Your task to perform on an android device: Clear the shopping cart on ebay.com. Search for "macbook pro" on ebay.com, select the first entry, add it to the cart, then select checkout. Image 0: 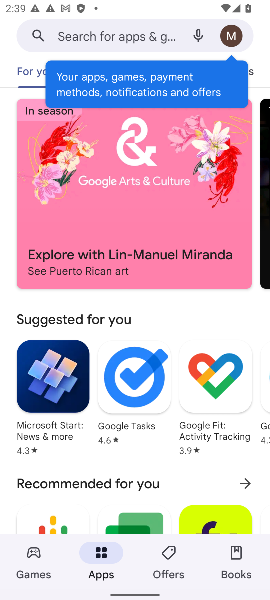
Step 0: press home button
Your task to perform on an android device: Clear the shopping cart on ebay.com. Search for "macbook pro" on ebay.com, select the first entry, add it to the cart, then select checkout. Image 1: 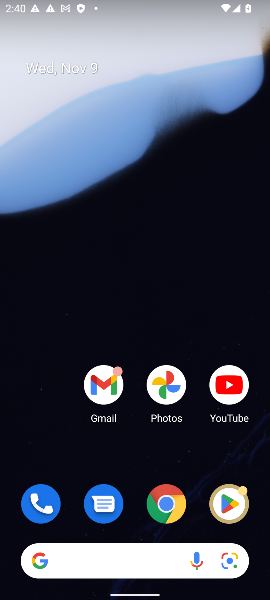
Step 1: click (164, 501)
Your task to perform on an android device: Clear the shopping cart on ebay.com. Search for "macbook pro" on ebay.com, select the first entry, add it to the cart, then select checkout. Image 2: 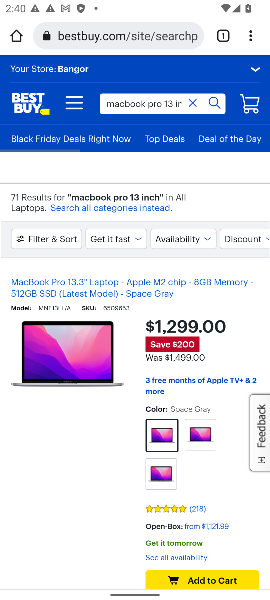
Step 2: click (100, 32)
Your task to perform on an android device: Clear the shopping cart on ebay.com. Search for "macbook pro" on ebay.com, select the first entry, add it to the cart, then select checkout. Image 3: 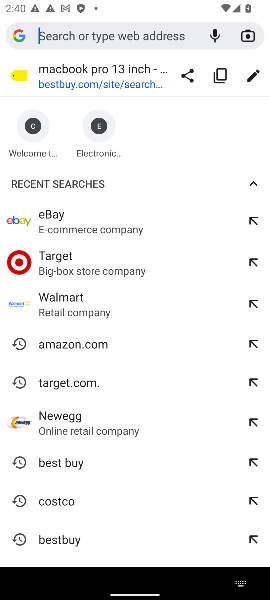
Step 3: click (55, 216)
Your task to perform on an android device: Clear the shopping cart on ebay.com. Search for "macbook pro" on ebay.com, select the first entry, add it to the cart, then select checkout. Image 4: 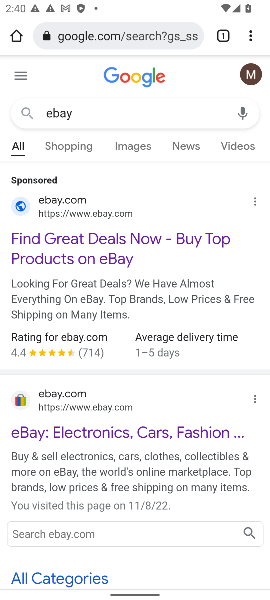
Step 4: click (65, 444)
Your task to perform on an android device: Clear the shopping cart on ebay.com. Search for "macbook pro" on ebay.com, select the first entry, add it to the cart, then select checkout. Image 5: 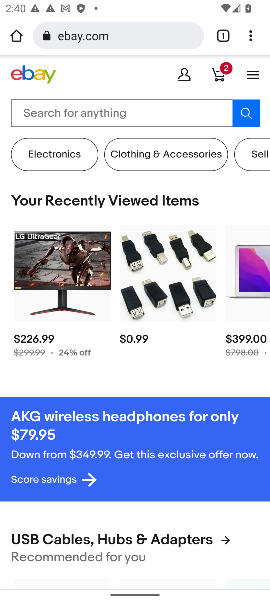
Step 5: click (216, 75)
Your task to perform on an android device: Clear the shopping cart on ebay.com. Search for "macbook pro" on ebay.com, select the first entry, add it to the cart, then select checkout. Image 6: 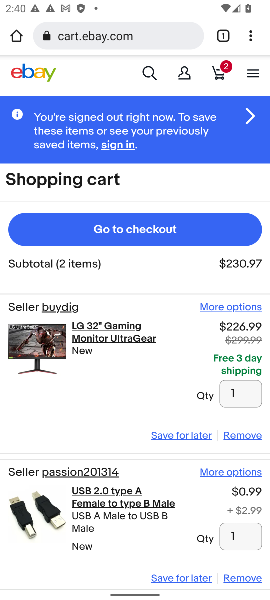
Step 6: click (227, 433)
Your task to perform on an android device: Clear the shopping cart on ebay.com. Search for "macbook pro" on ebay.com, select the first entry, add it to the cart, then select checkout. Image 7: 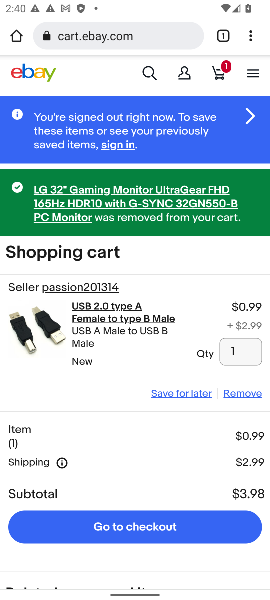
Step 7: click (234, 390)
Your task to perform on an android device: Clear the shopping cart on ebay.com. Search for "macbook pro" on ebay.com, select the first entry, add it to the cart, then select checkout. Image 8: 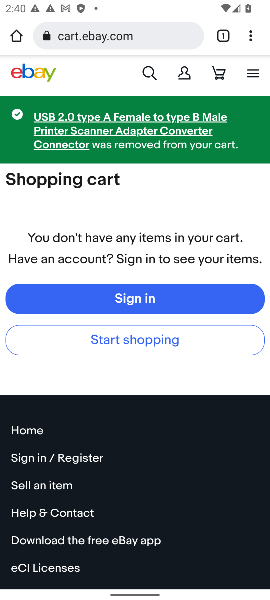
Step 8: click (152, 74)
Your task to perform on an android device: Clear the shopping cart on ebay.com. Search for "macbook pro" on ebay.com, select the first entry, add it to the cart, then select checkout. Image 9: 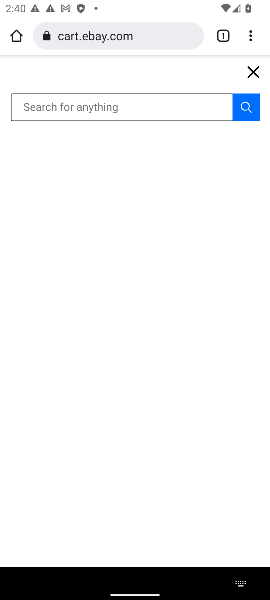
Step 9: type "macbook pro"
Your task to perform on an android device: Clear the shopping cart on ebay.com. Search for "macbook pro" on ebay.com, select the first entry, add it to the cart, then select checkout. Image 10: 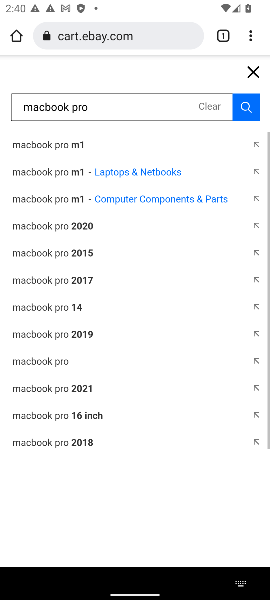
Step 10: click (56, 369)
Your task to perform on an android device: Clear the shopping cart on ebay.com. Search for "macbook pro" on ebay.com, select the first entry, add it to the cart, then select checkout. Image 11: 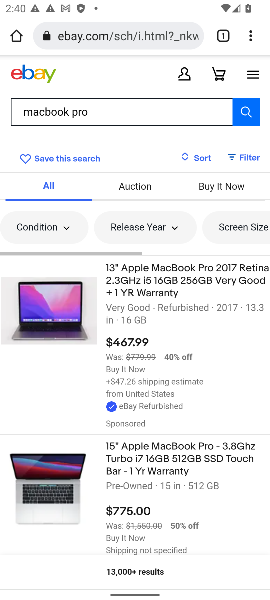
Step 11: click (53, 320)
Your task to perform on an android device: Clear the shopping cart on ebay.com. Search for "macbook pro" on ebay.com, select the first entry, add it to the cart, then select checkout. Image 12: 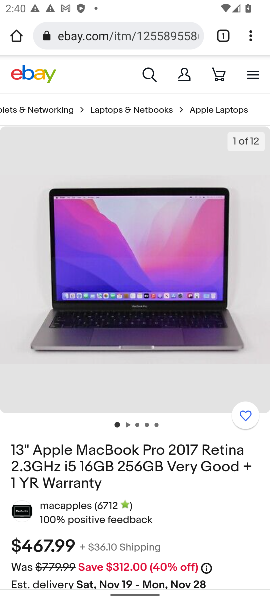
Step 12: drag from (95, 429) to (102, 107)
Your task to perform on an android device: Clear the shopping cart on ebay.com. Search for "macbook pro" on ebay.com, select the first entry, add it to the cart, then select checkout. Image 13: 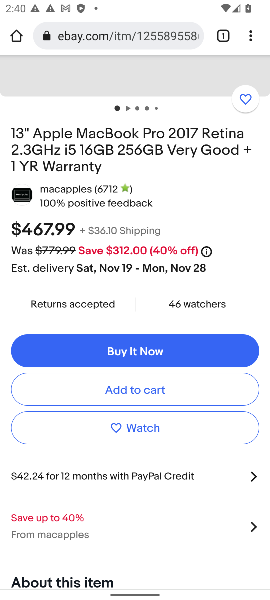
Step 13: click (112, 385)
Your task to perform on an android device: Clear the shopping cart on ebay.com. Search for "macbook pro" on ebay.com, select the first entry, add it to the cart, then select checkout. Image 14: 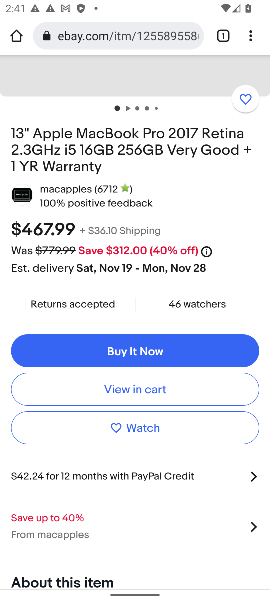
Step 14: click (112, 385)
Your task to perform on an android device: Clear the shopping cart on ebay.com. Search for "macbook pro" on ebay.com, select the first entry, add it to the cart, then select checkout. Image 15: 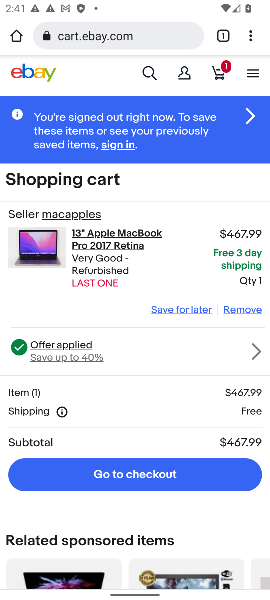
Step 15: click (115, 477)
Your task to perform on an android device: Clear the shopping cart on ebay.com. Search for "macbook pro" on ebay.com, select the first entry, add it to the cart, then select checkout. Image 16: 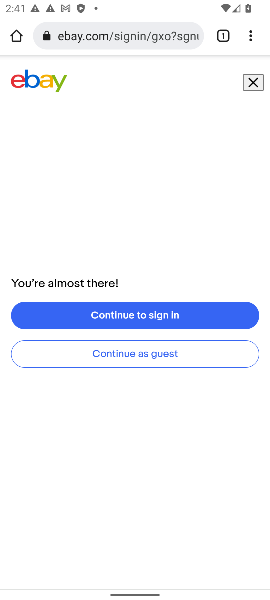
Step 16: task complete